Your task to perform on an android device: turn on javascript in the chrome app Image 0: 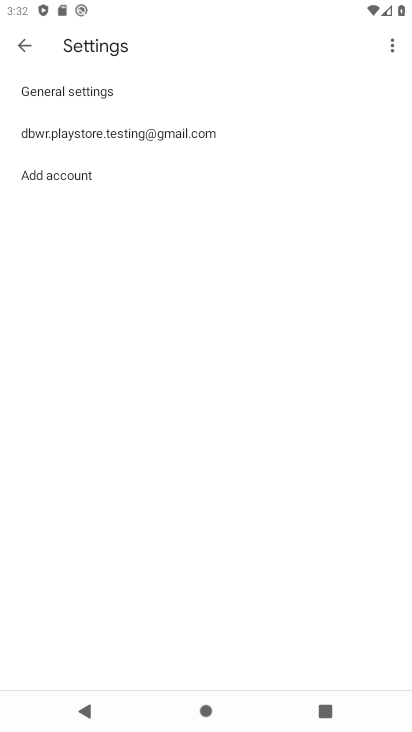
Step 0: press home button
Your task to perform on an android device: turn on javascript in the chrome app Image 1: 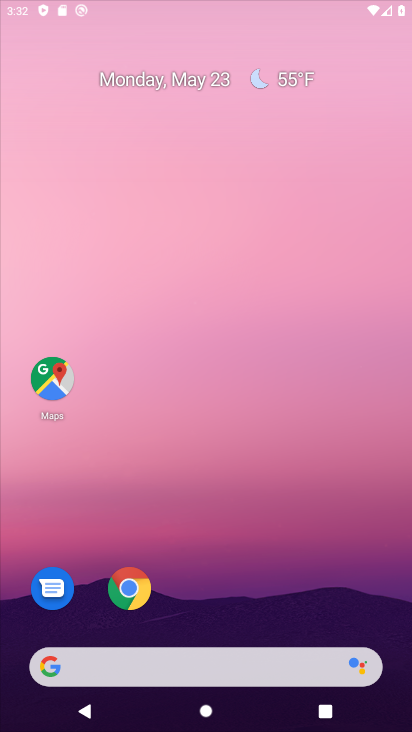
Step 1: click (224, 538)
Your task to perform on an android device: turn on javascript in the chrome app Image 2: 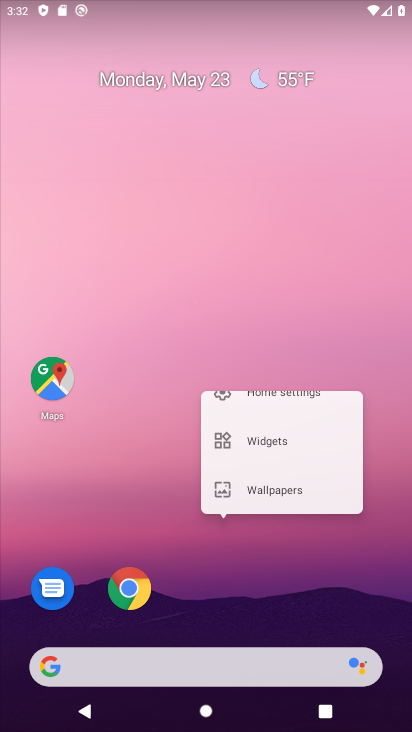
Step 2: click (123, 589)
Your task to perform on an android device: turn on javascript in the chrome app Image 3: 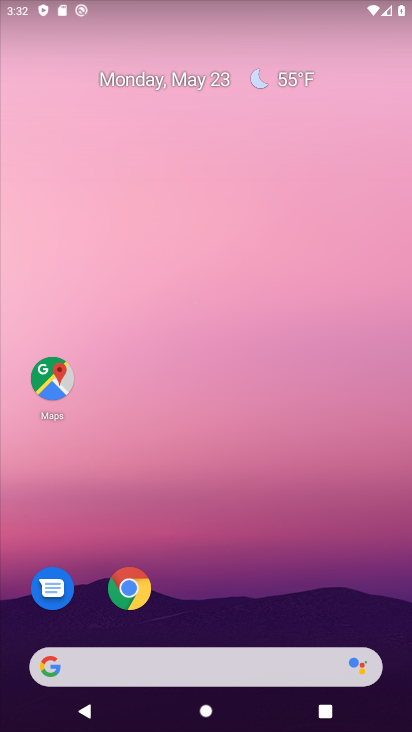
Step 3: click (125, 589)
Your task to perform on an android device: turn on javascript in the chrome app Image 4: 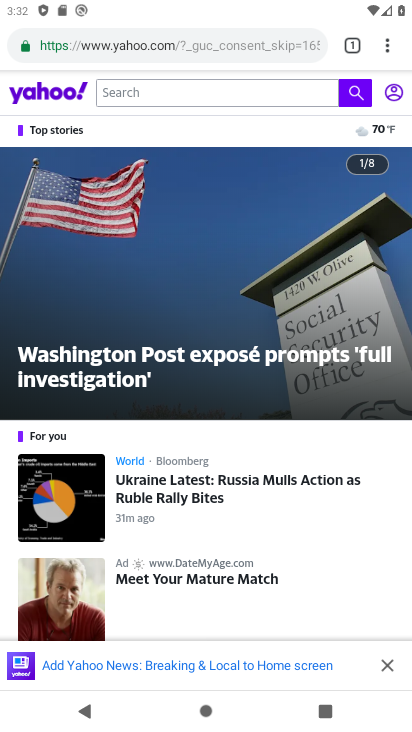
Step 4: click (378, 40)
Your task to perform on an android device: turn on javascript in the chrome app Image 5: 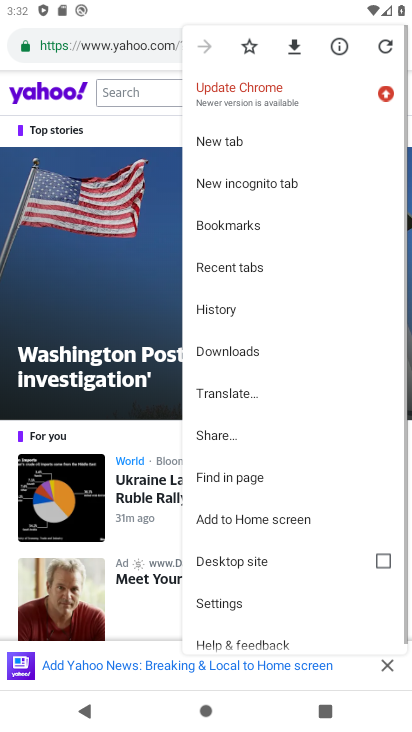
Step 5: click (216, 595)
Your task to perform on an android device: turn on javascript in the chrome app Image 6: 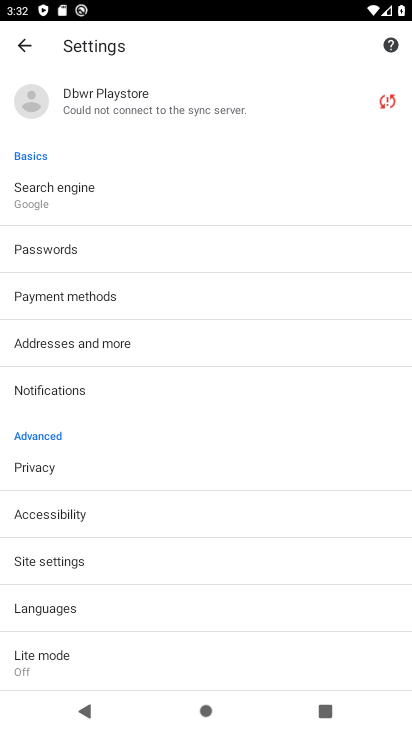
Step 6: drag from (145, 575) to (146, 425)
Your task to perform on an android device: turn on javascript in the chrome app Image 7: 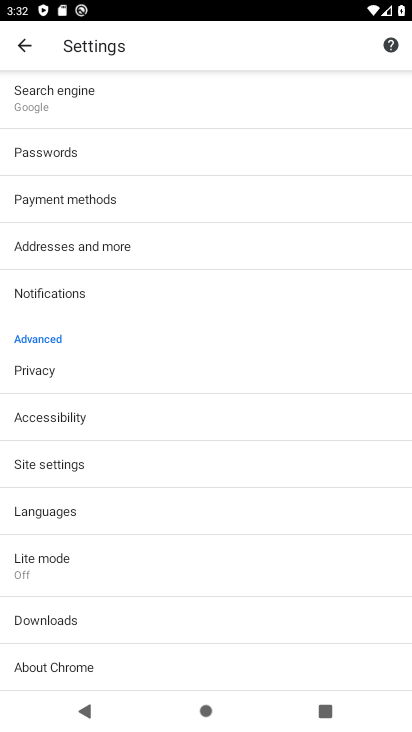
Step 7: click (48, 470)
Your task to perform on an android device: turn on javascript in the chrome app Image 8: 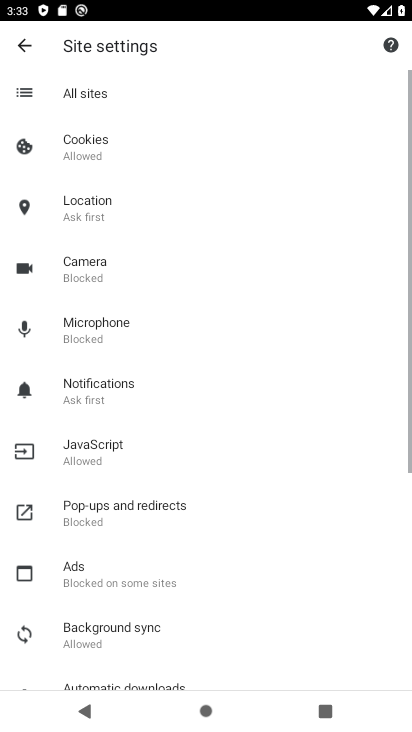
Step 8: click (129, 452)
Your task to perform on an android device: turn on javascript in the chrome app Image 9: 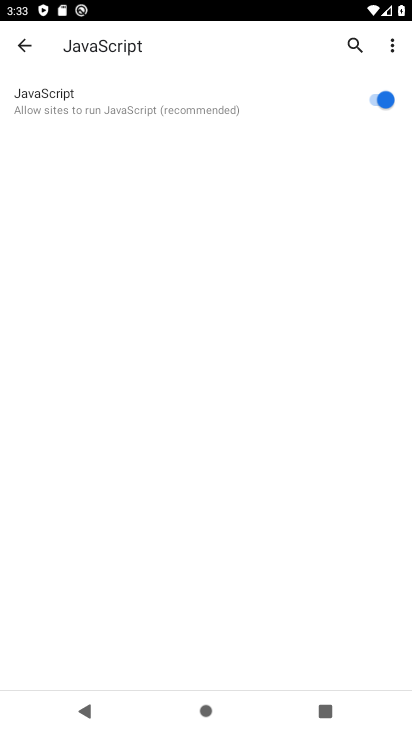
Step 9: task complete